Your task to perform on an android device: open the mobile data screen to see how much data has been used Image 0: 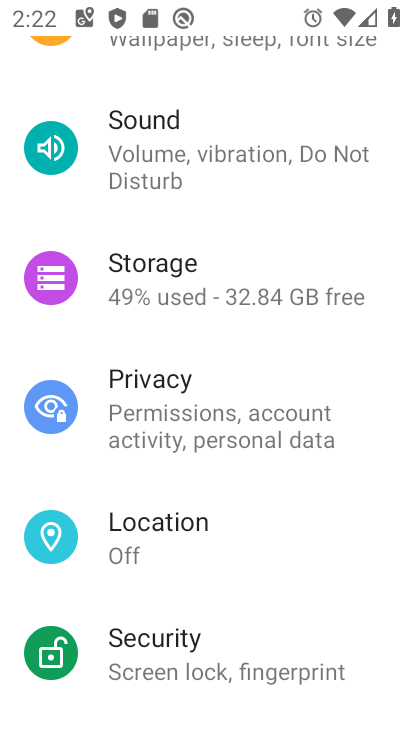
Step 0: press home button
Your task to perform on an android device: open the mobile data screen to see how much data has been used Image 1: 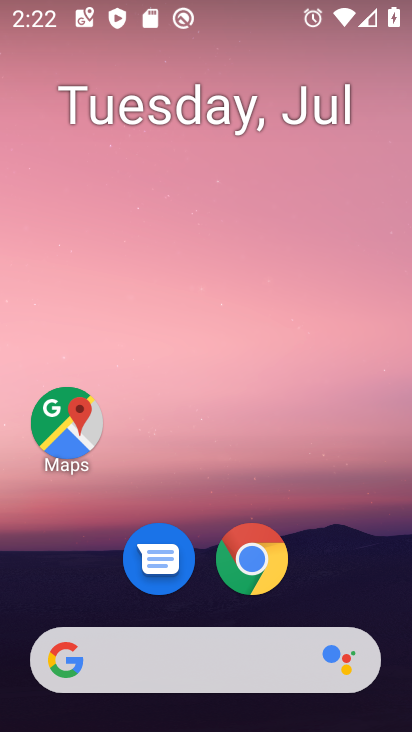
Step 1: drag from (362, 607) to (374, 184)
Your task to perform on an android device: open the mobile data screen to see how much data has been used Image 2: 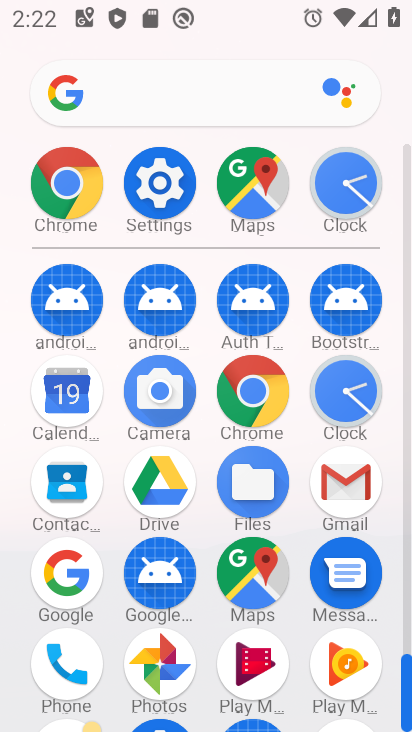
Step 2: click (171, 188)
Your task to perform on an android device: open the mobile data screen to see how much data has been used Image 3: 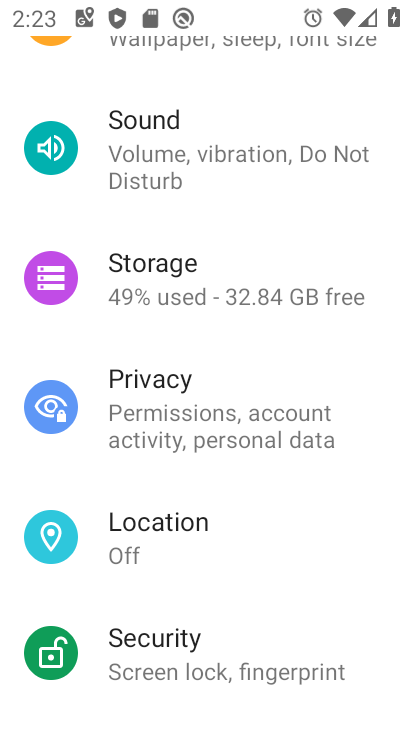
Step 3: drag from (342, 234) to (347, 350)
Your task to perform on an android device: open the mobile data screen to see how much data has been used Image 4: 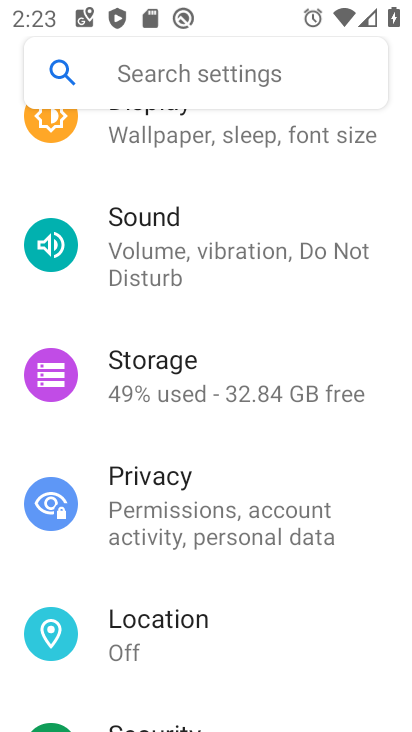
Step 4: drag from (356, 293) to (361, 371)
Your task to perform on an android device: open the mobile data screen to see how much data has been used Image 5: 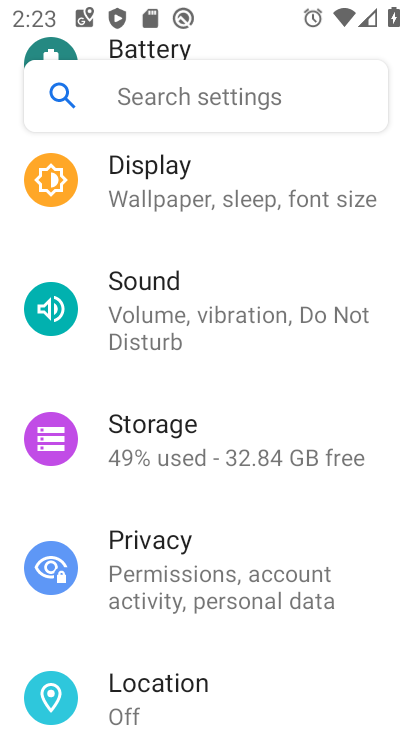
Step 5: drag from (366, 260) to (368, 347)
Your task to perform on an android device: open the mobile data screen to see how much data has been used Image 6: 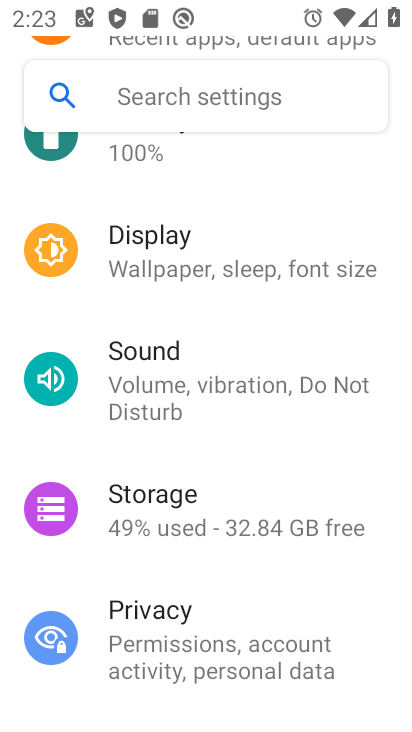
Step 6: drag from (368, 244) to (371, 350)
Your task to perform on an android device: open the mobile data screen to see how much data has been used Image 7: 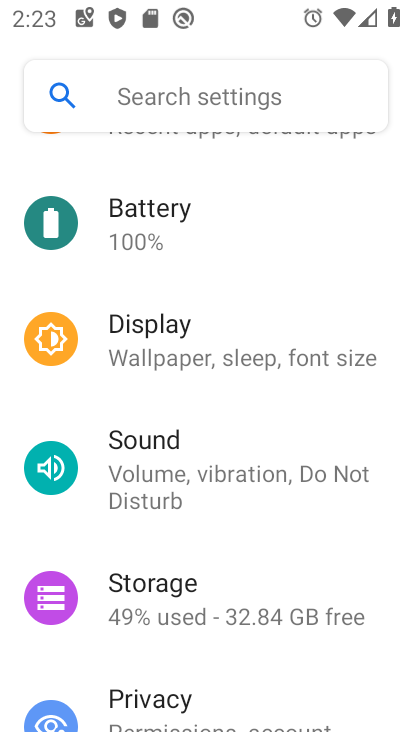
Step 7: drag from (363, 280) to (361, 383)
Your task to perform on an android device: open the mobile data screen to see how much data has been used Image 8: 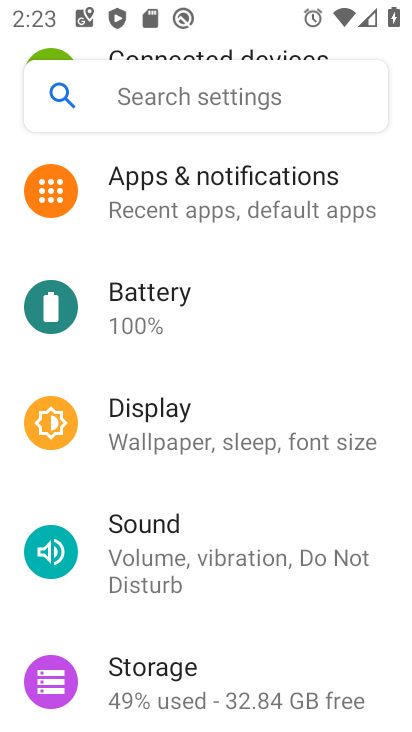
Step 8: drag from (355, 304) to (354, 401)
Your task to perform on an android device: open the mobile data screen to see how much data has been used Image 9: 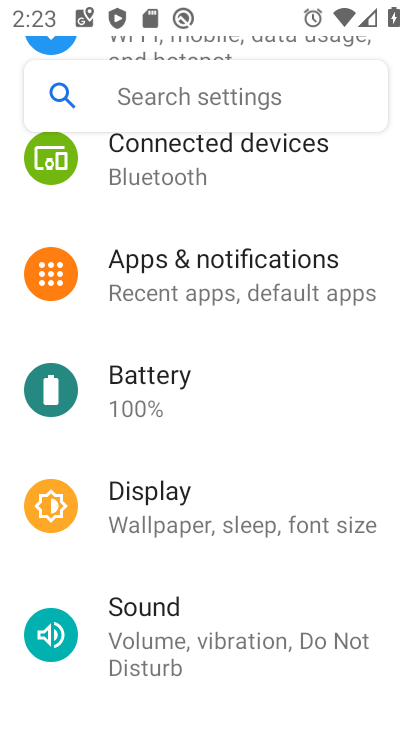
Step 9: drag from (354, 306) to (353, 410)
Your task to perform on an android device: open the mobile data screen to see how much data has been used Image 10: 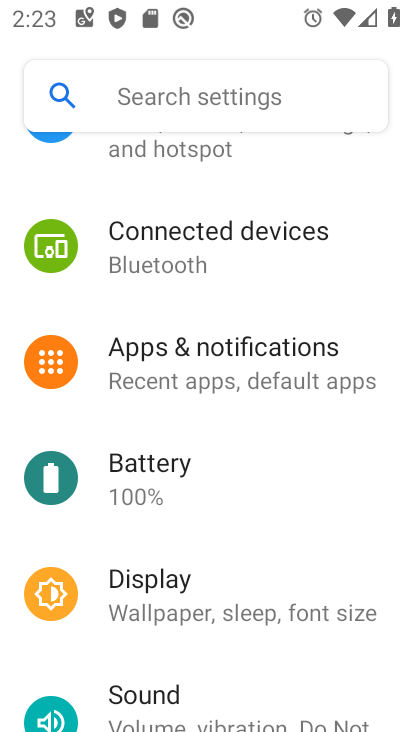
Step 10: drag from (351, 298) to (354, 399)
Your task to perform on an android device: open the mobile data screen to see how much data has been used Image 11: 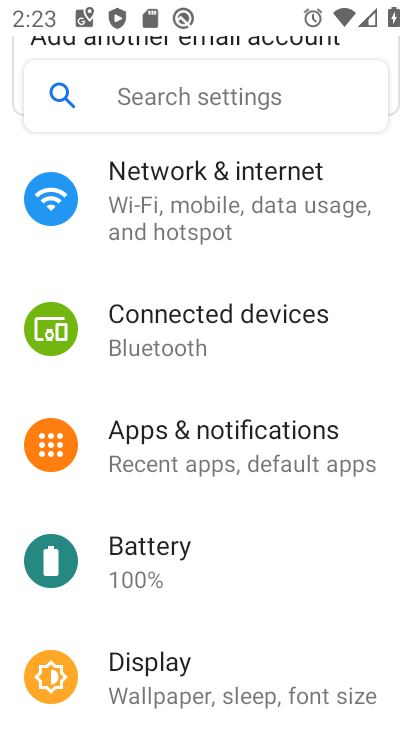
Step 11: drag from (347, 314) to (350, 486)
Your task to perform on an android device: open the mobile data screen to see how much data has been used Image 12: 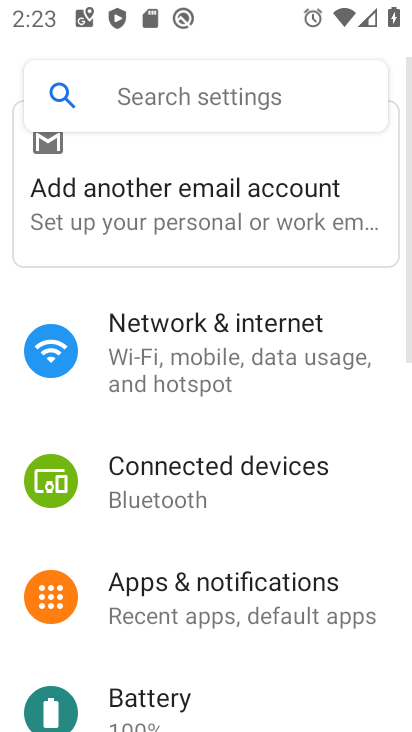
Step 12: click (324, 330)
Your task to perform on an android device: open the mobile data screen to see how much data has been used Image 13: 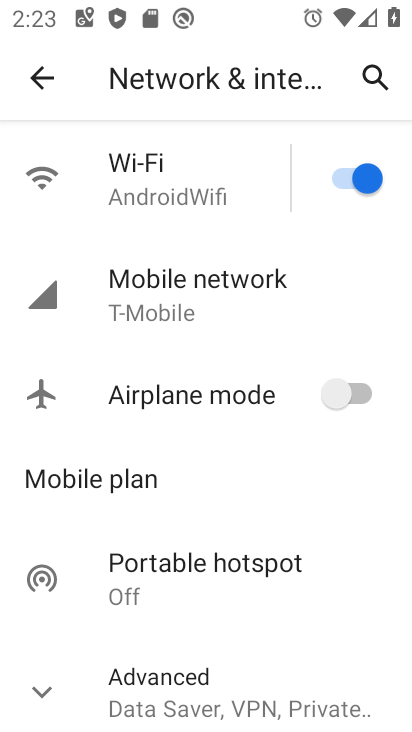
Step 13: click (225, 319)
Your task to perform on an android device: open the mobile data screen to see how much data has been used Image 14: 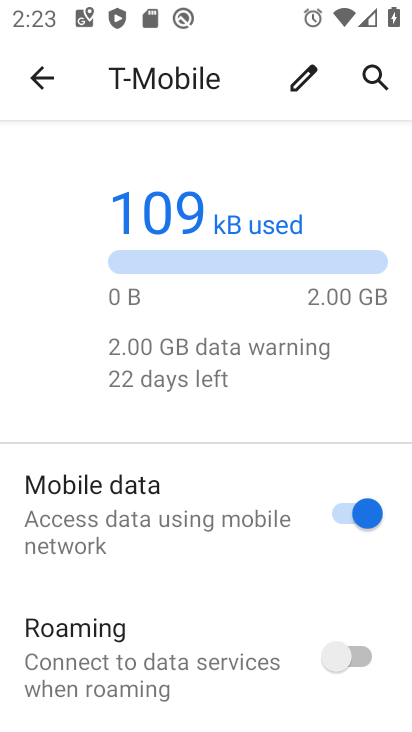
Step 14: drag from (221, 543) to (233, 418)
Your task to perform on an android device: open the mobile data screen to see how much data has been used Image 15: 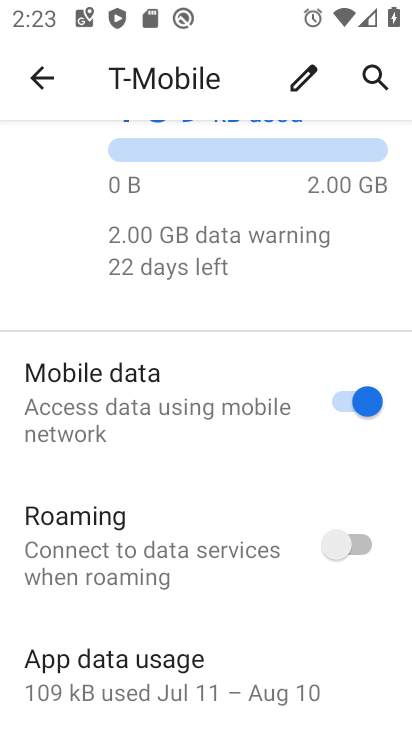
Step 15: drag from (259, 611) to (274, 460)
Your task to perform on an android device: open the mobile data screen to see how much data has been used Image 16: 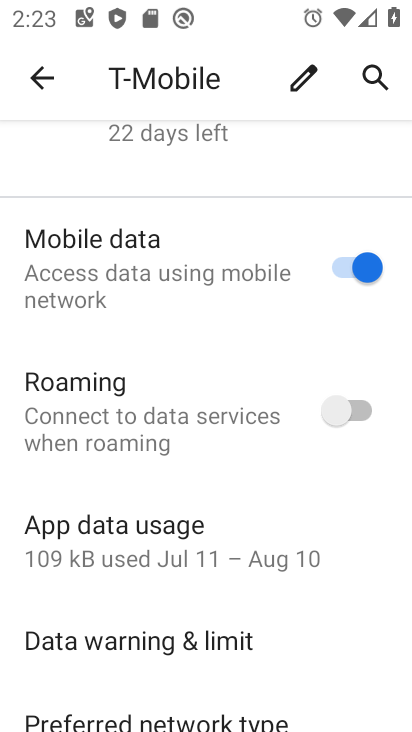
Step 16: click (266, 516)
Your task to perform on an android device: open the mobile data screen to see how much data has been used Image 17: 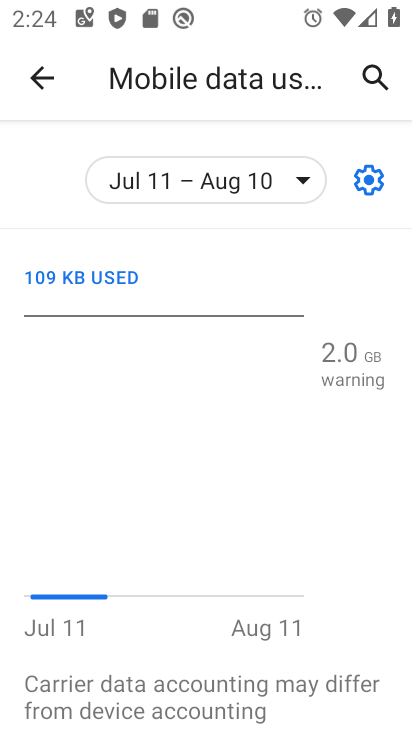
Step 17: task complete